Your task to perform on an android device: turn on javascript in the chrome app Image 0: 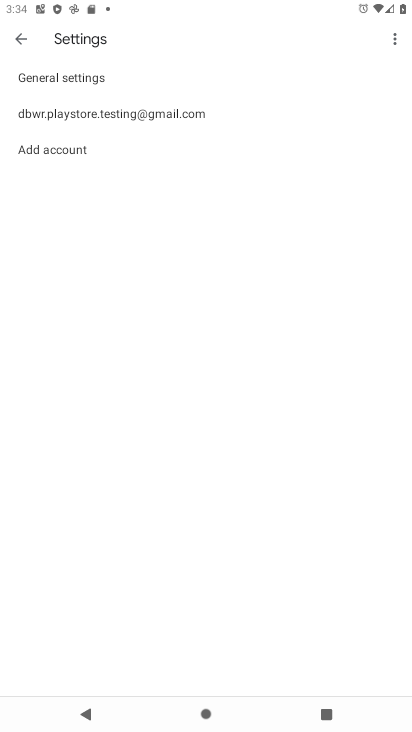
Step 0: press home button
Your task to perform on an android device: turn on javascript in the chrome app Image 1: 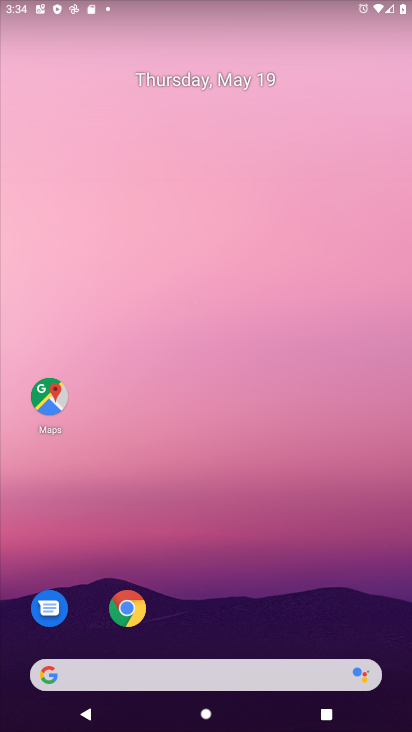
Step 1: drag from (282, 583) to (216, 0)
Your task to perform on an android device: turn on javascript in the chrome app Image 2: 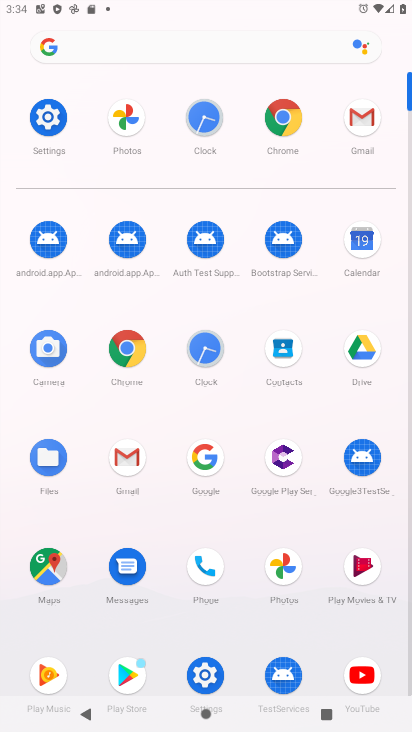
Step 2: click (293, 130)
Your task to perform on an android device: turn on javascript in the chrome app Image 3: 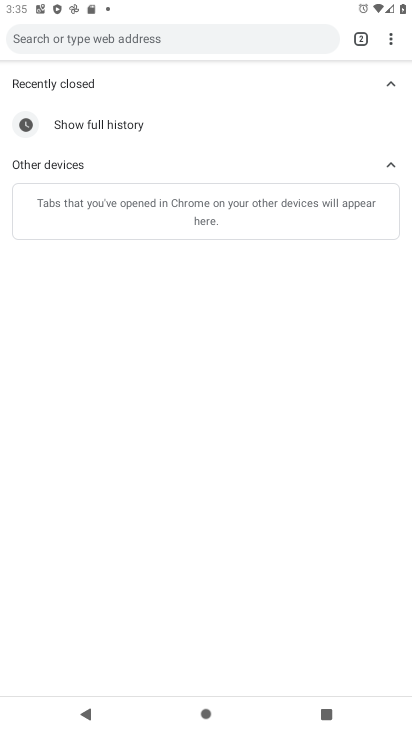
Step 3: click (381, 39)
Your task to perform on an android device: turn on javascript in the chrome app Image 4: 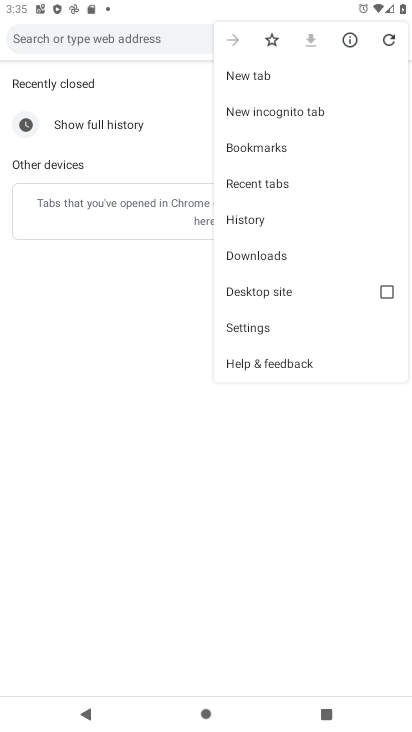
Step 4: click (291, 323)
Your task to perform on an android device: turn on javascript in the chrome app Image 5: 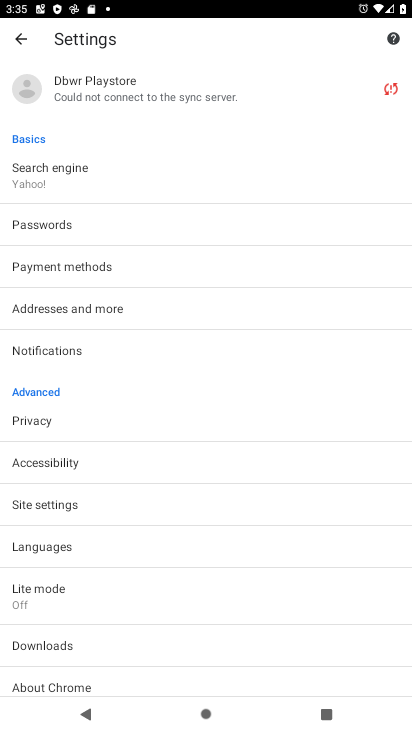
Step 5: click (175, 507)
Your task to perform on an android device: turn on javascript in the chrome app Image 6: 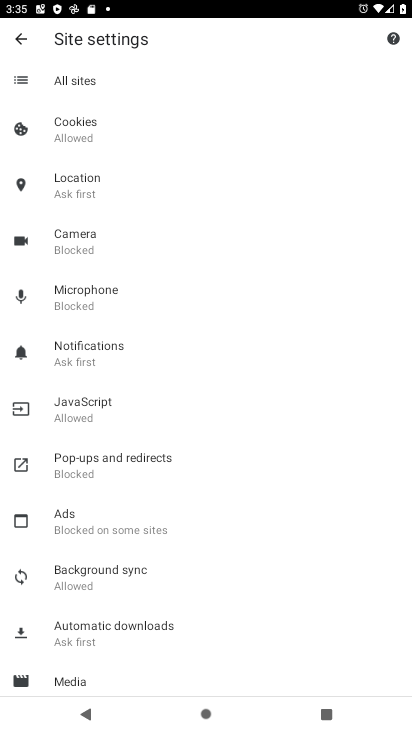
Step 6: click (187, 415)
Your task to perform on an android device: turn on javascript in the chrome app Image 7: 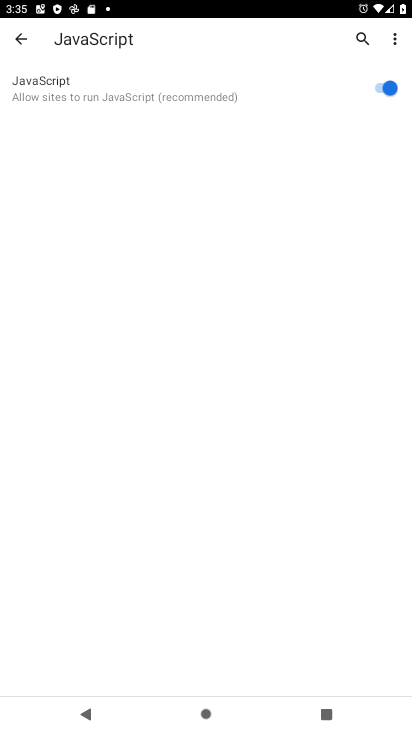
Step 7: task complete